Your task to perform on an android device: change notification settings in the gmail app Image 0: 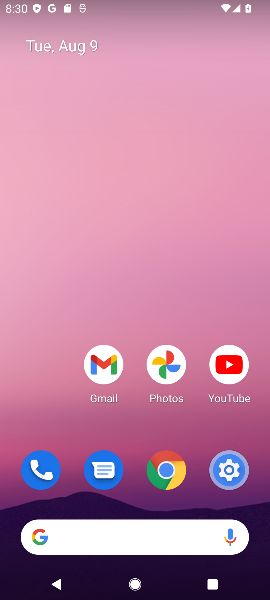
Step 0: click (97, 375)
Your task to perform on an android device: change notification settings in the gmail app Image 1: 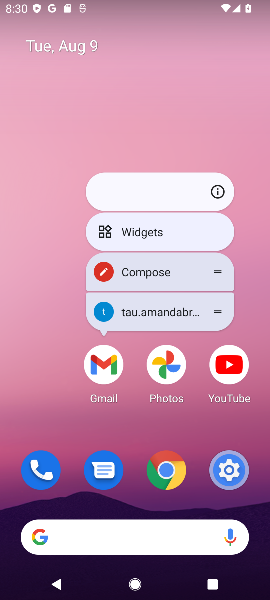
Step 1: click (221, 193)
Your task to perform on an android device: change notification settings in the gmail app Image 2: 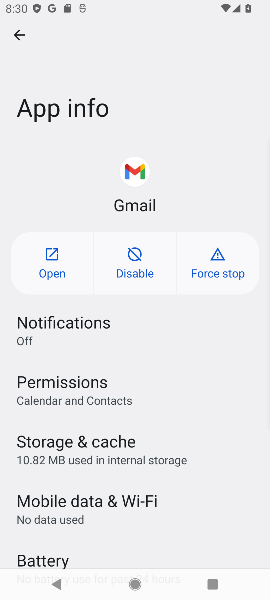
Step 2: click (117, 335)
Your task to perform on an android device: change notification settings in the gmail app Image 3: 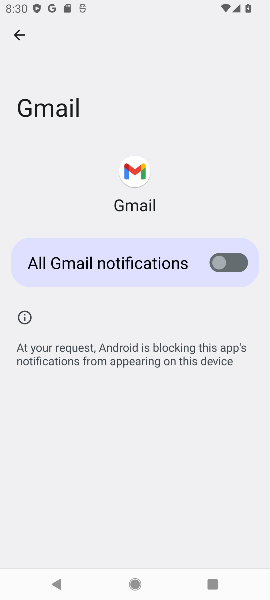
Step 3: click (235, 255)
Your task to perform on an android device: change notification settings in the gmail app Image 4: 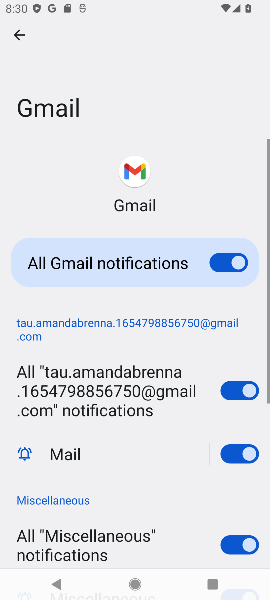
Step 4: task complete